Your task to perform on an android device: Open Google Image 0: 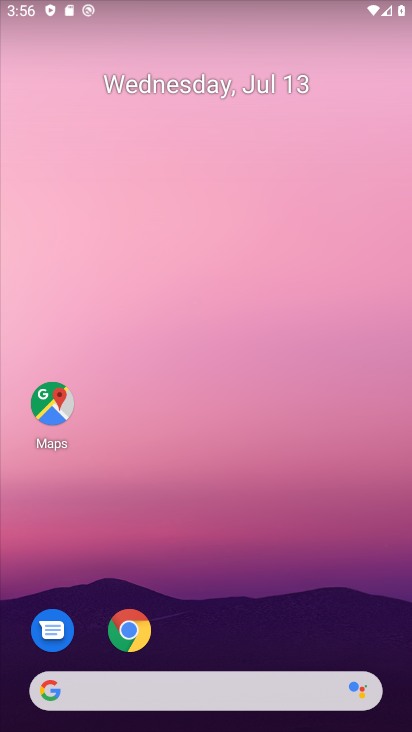
Step 0: press home button
Your task to perform on an android device: Open Google Image 1: 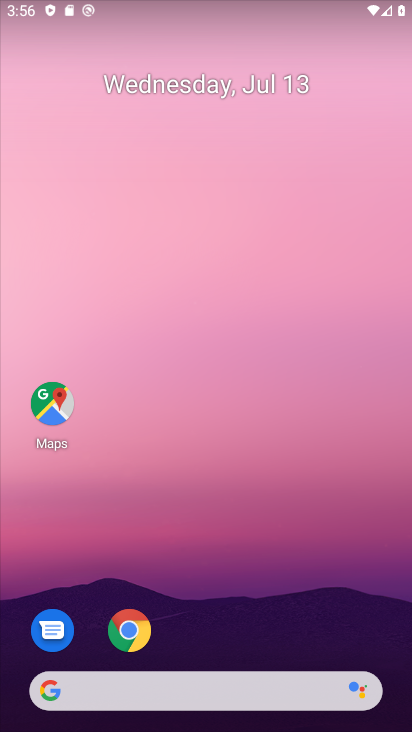
Step 1: click (54, 698)
Your task to perform on an android device: Open Google Image 2: 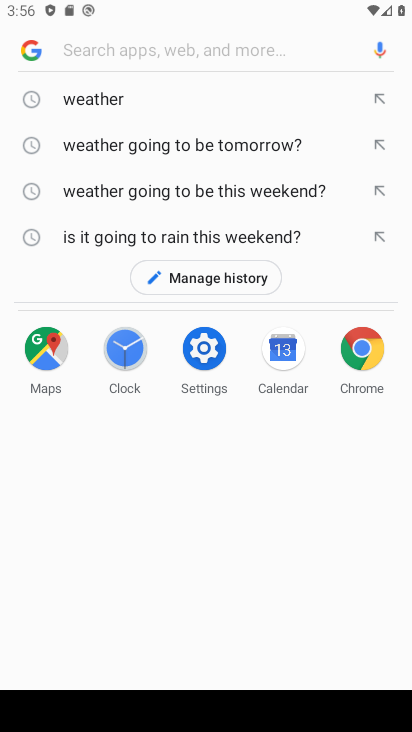
Step 2: task complete